Your task to perform on an android device: turn off sleep mode Image 0: 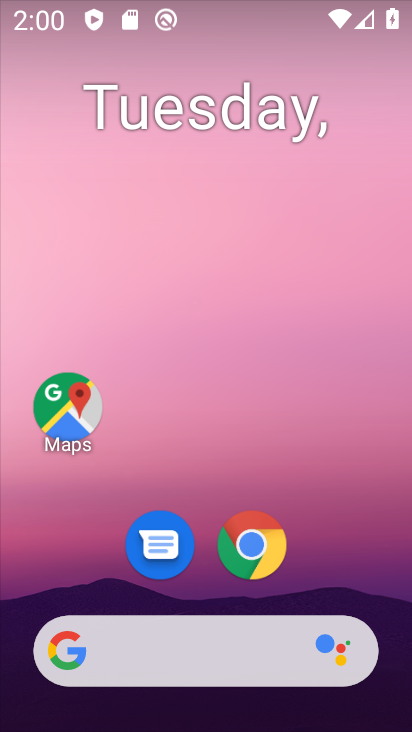
Step 0: drag from (339, 530) to (252, 37)
Your task to perform on an android device: turn off sleep mode Image 1: 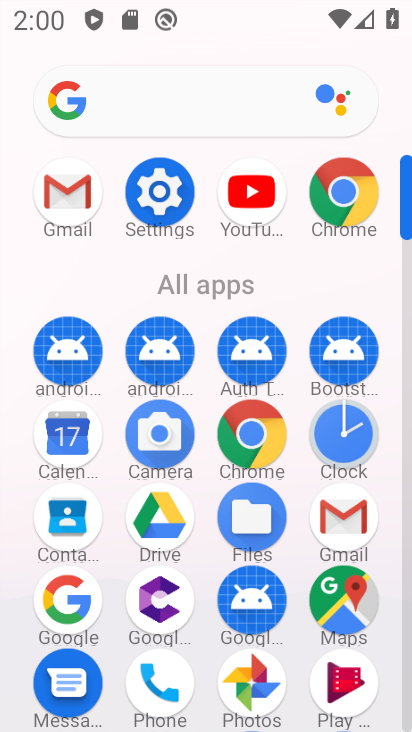
Step 1: drag from (21, 508) to (7, 245)
Your task to perform on an android device: turn off sleep mode Image 2: 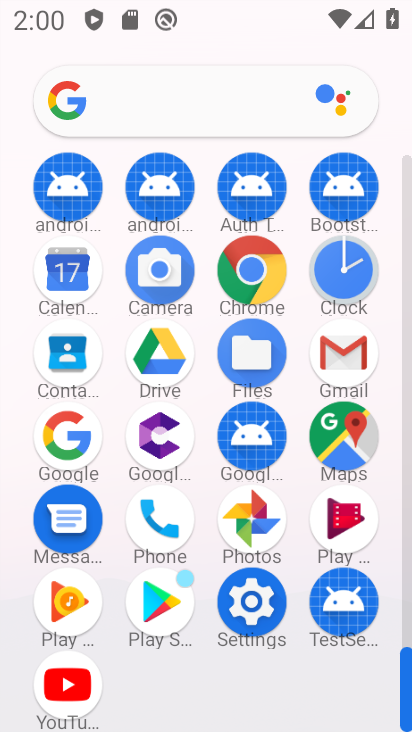
Step 2: click (245, 596)
Your task to perform on an android device: turn off sleep mode Image 3: 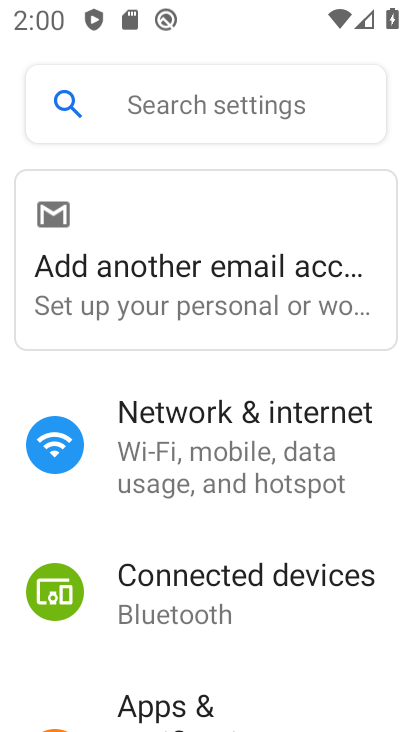
Step 3: drag from (302, 447) to (311, 134)
Your task to perform on an android device: turn off sleep mode Image 4: 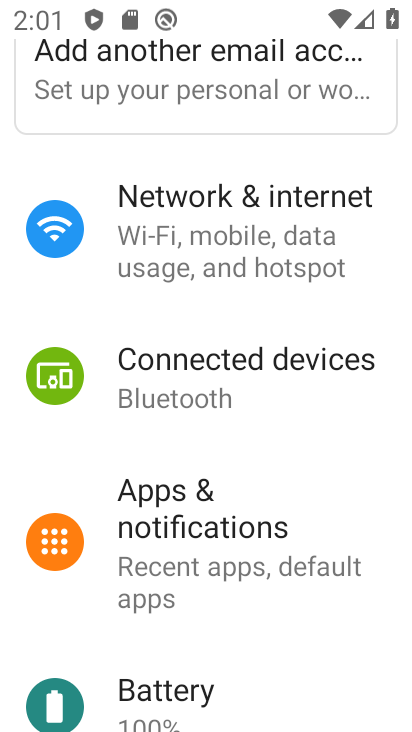
Step 4: drag from (238, 663) to (218, 288)
Your task to perform on an android device: turn off sleep mode Image 5: 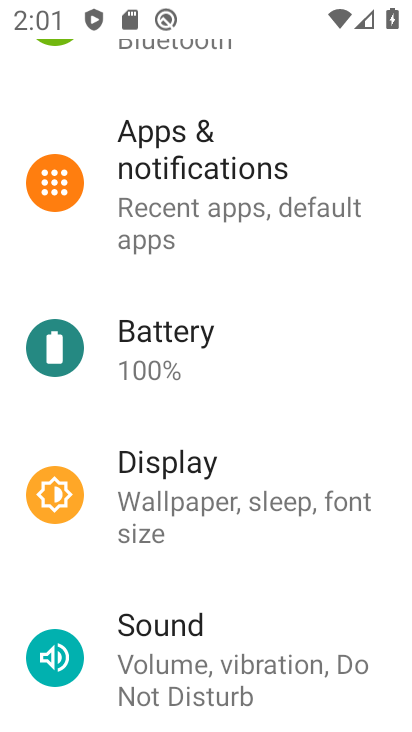
Step 5: drag from (234, 541) to (256, 283)
Your task to perform on an android device: turn off sleep mode Image 6: 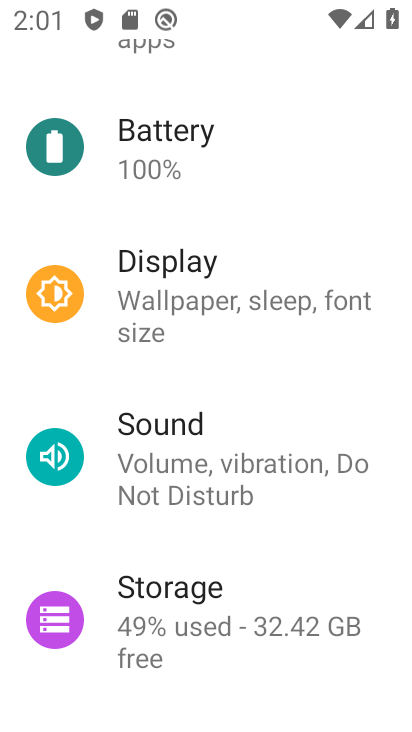
Step 6: click (187, 293)
Your task to perform on an android device: turn off sleep mode Image 7: 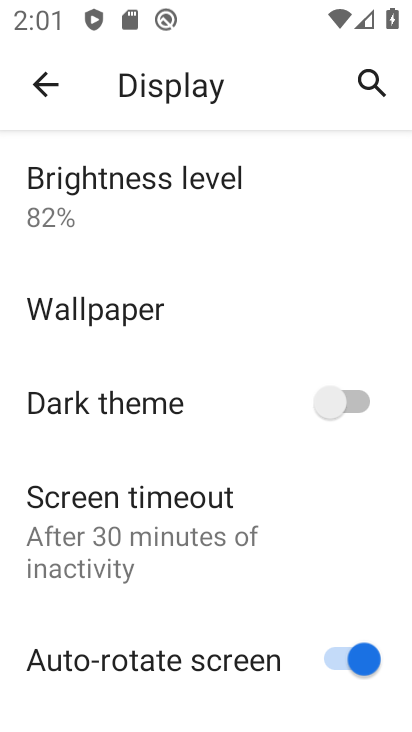
Step 7: drag from (162, 527) to (185, 190)
Your task to perform on an android device: turn off sleep mode Image 8: 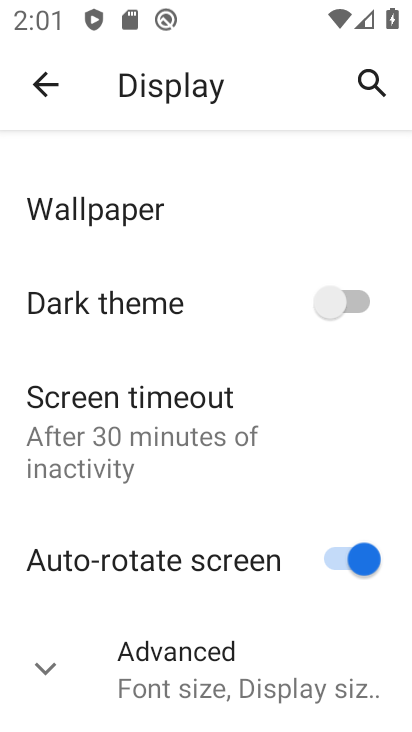
Step 8: click (47, 682)
Your task to perform on an android device: turn off sleep mode Image 9: 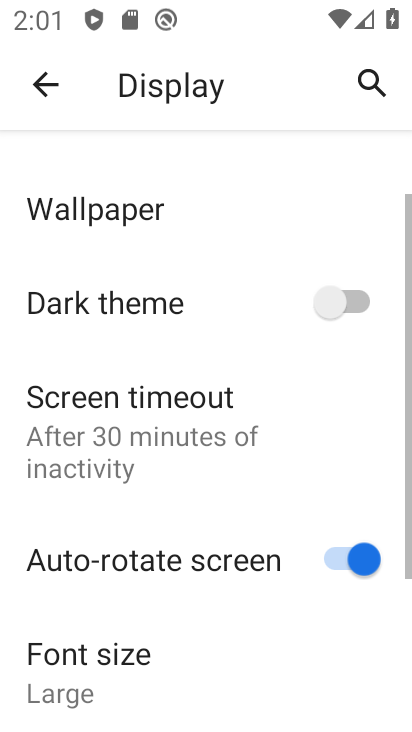
Step 9: task complete